Your task to perform on an android device: turn off smart reply in the gmail app Image 0: 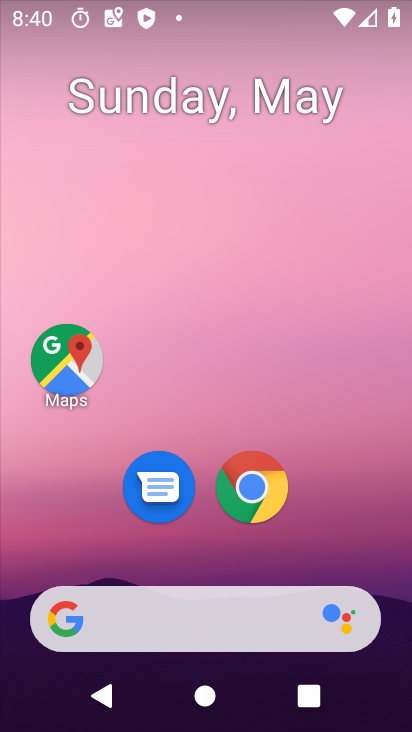
Step 0: press back button
Your task to perform on an android device: turn off smart reply in the gmail app Image 1: 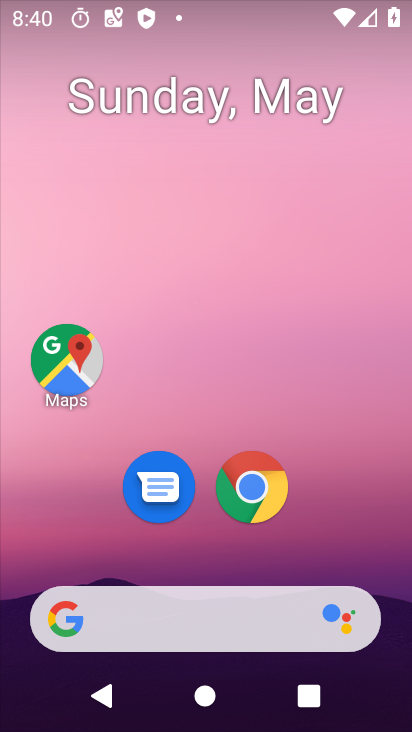
Step 1: drag from (108, 431) to (220, 174)
Your task to perform on an android device: turn off smart reply in the gmail app Image 2: 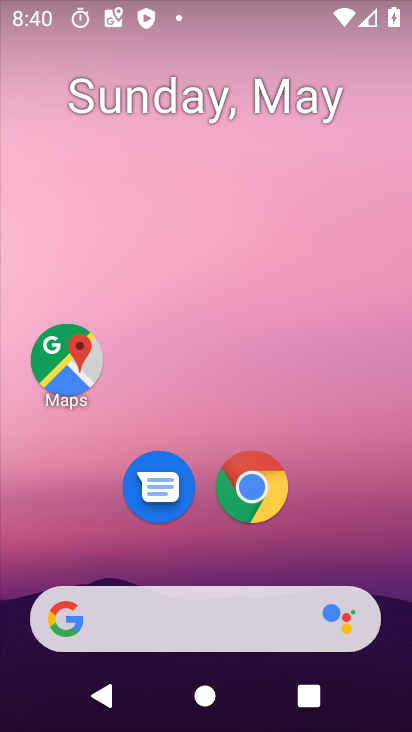
Step 2: drag from (28, 604) to (261, 144)
Your task to perform on an android device: turn off smart reply in the gmail app Image 3: 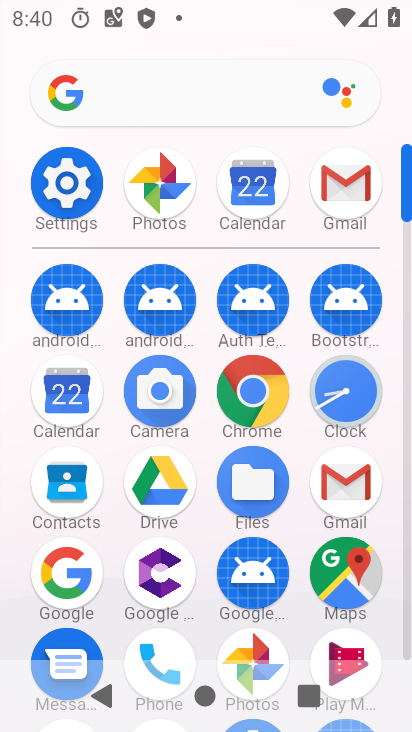
Step 3: click (358, 181)
Your task to perform on an android device: turn off smart reply in the gmail app Image 4: 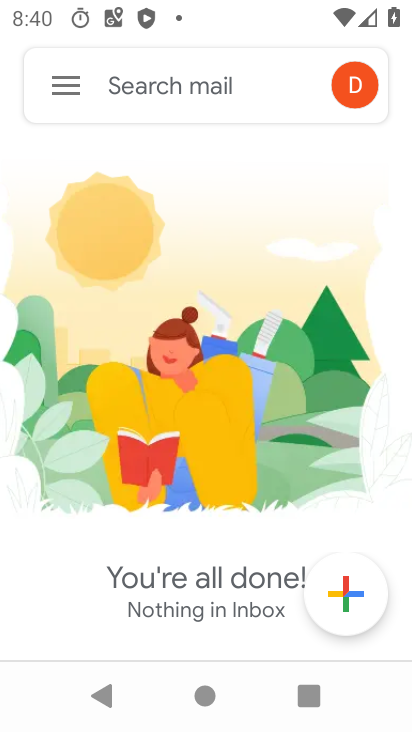
Step 4: click (53, 84)
Your task to perform on an android device: turn off smart reply in the gmail app Image 5: 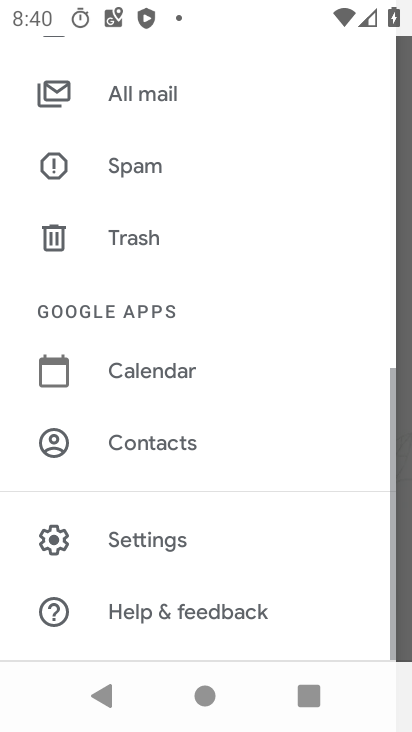
Step 5: click (111, 545)
Your task to perform on an android device: turn off smart reply in the gmail app Image 6: 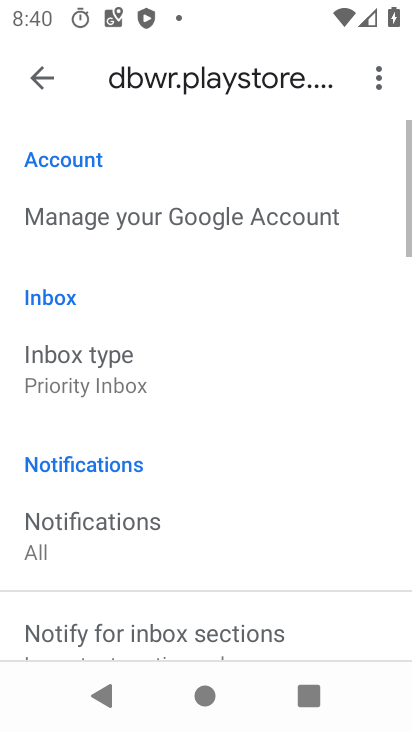
Step 6: drag from (5, 612) to (257, 124)
Your task to perform on an android device: turn off smart reply in the gmail app Image 7: 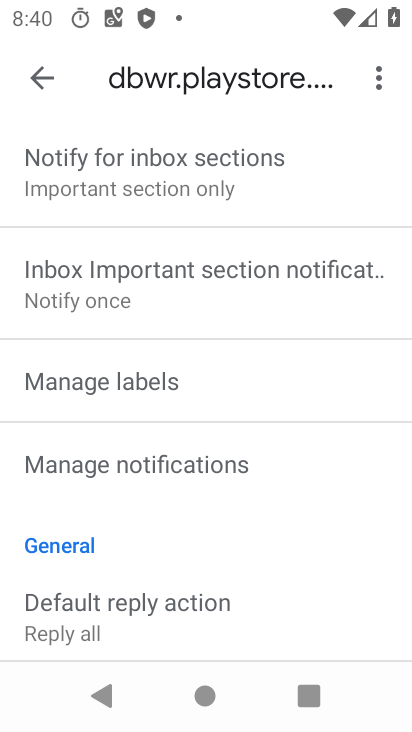
Step 7: drag from (1, 507) to (228, 172)
Your task to perform on an android device: turn off smart reply in the gmail app Image 8: 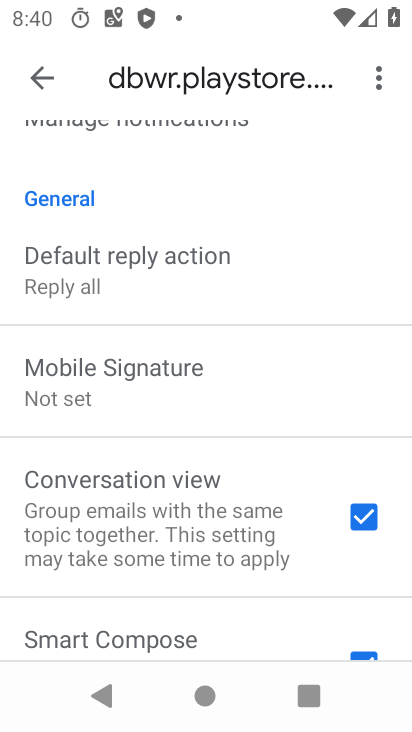
Step 8: drag from (0, 598) to (218, 237)
Your task to perform on an android device: turn off smart reply in the gmail app Image 9: 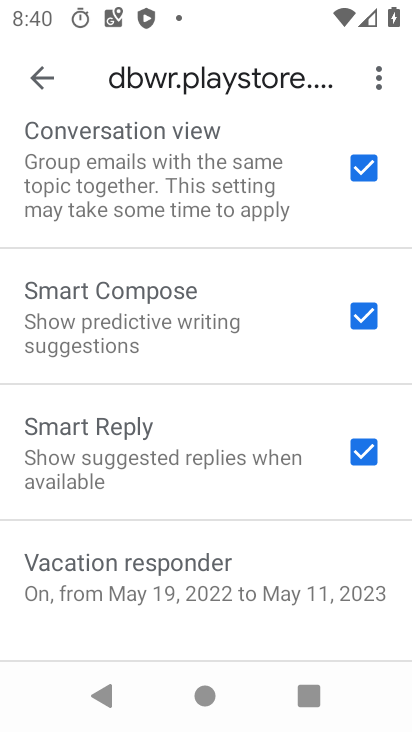
Step 9: drag from (16, 499) to (209, 208)
Your task to perform on an android device: turn off smart reply in the gmail app Image 10: 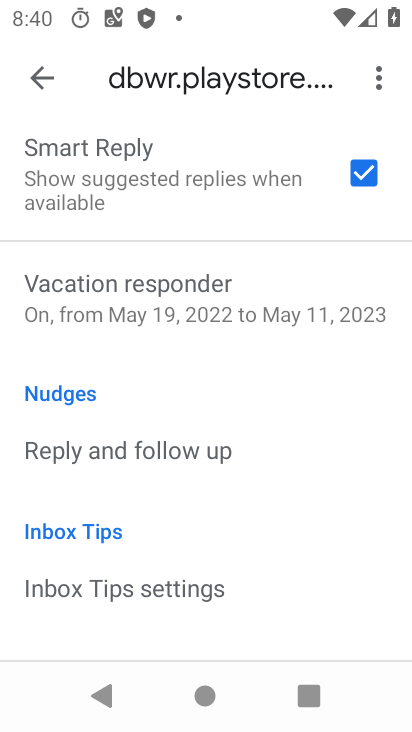
Step 10: drag from (18, 597) to (332, 183)
Your task to perform on an android device: turn off smart reply in the gmail app Image 11: 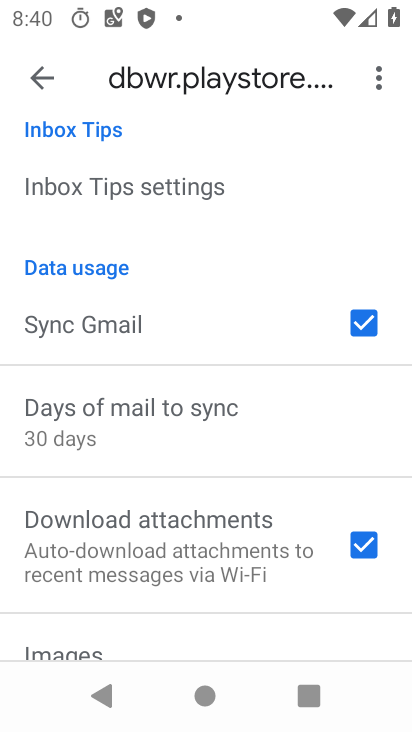
Step 11: drag from (218, 458) to (312, 168)
Your task to perform on an android device: turn off smart reply in the gmail app Image 12: 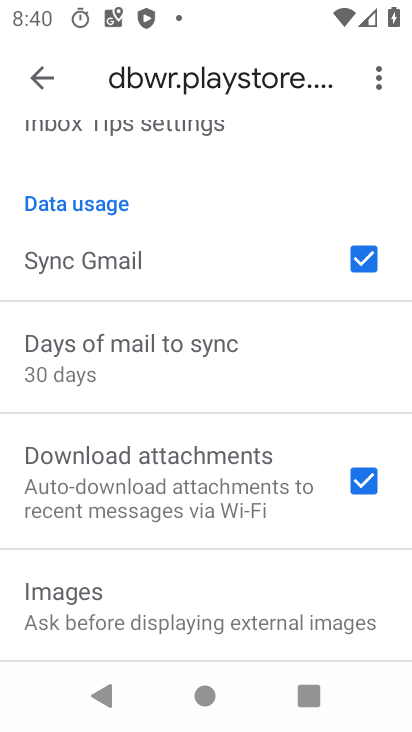
Step 12: drag from (278, 152) to (230, 659)
Your task to perform on an android device: turn off smart reply in the gmail app Image 13: 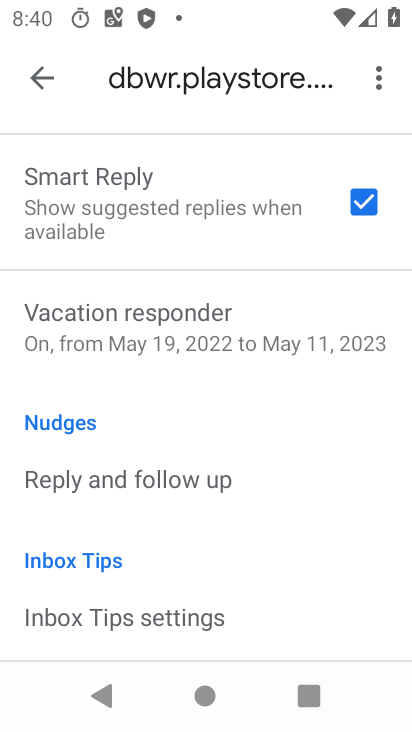
Step 13: click (355, 199)
Your task to perform on an android device: turn off smart reply in the gmail app Image 14: 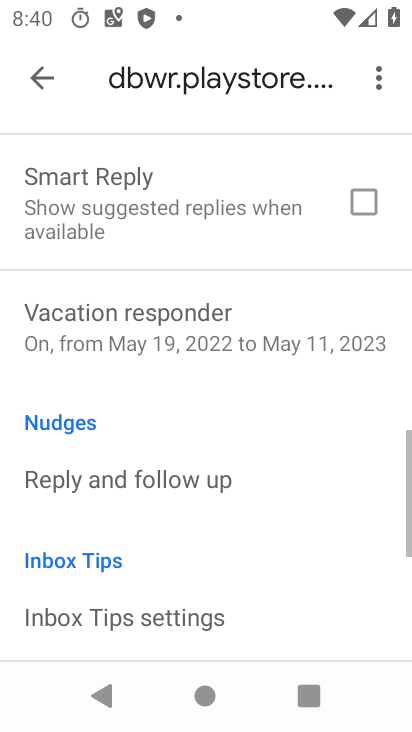
Step 14: task complete